Your task to perform on an android device: What's the weather going to be this weekend? Image 0: 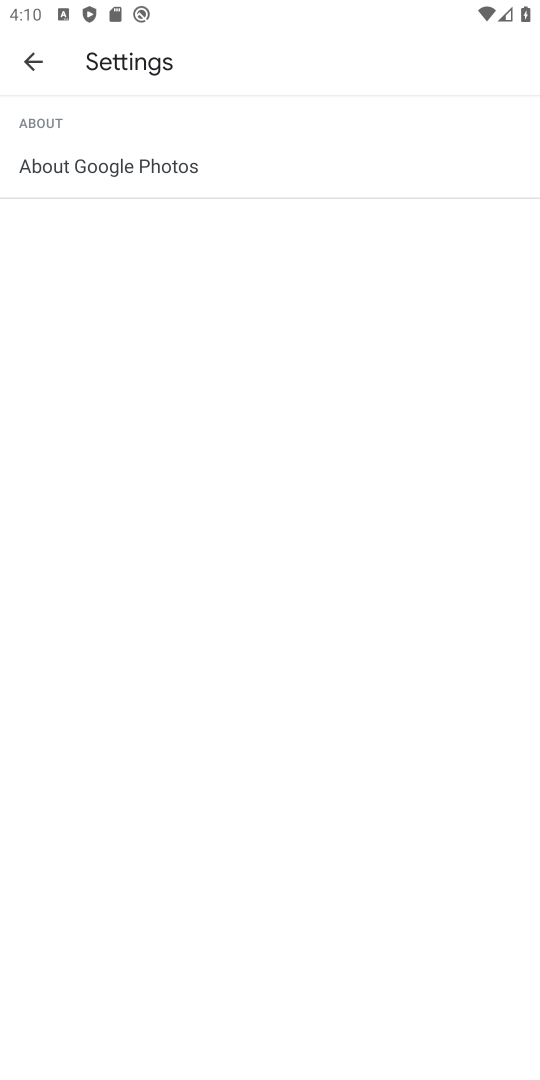
Step 0: press home button
Your task to perform on an android device: What's the weather going to be this weekend? Image 1: 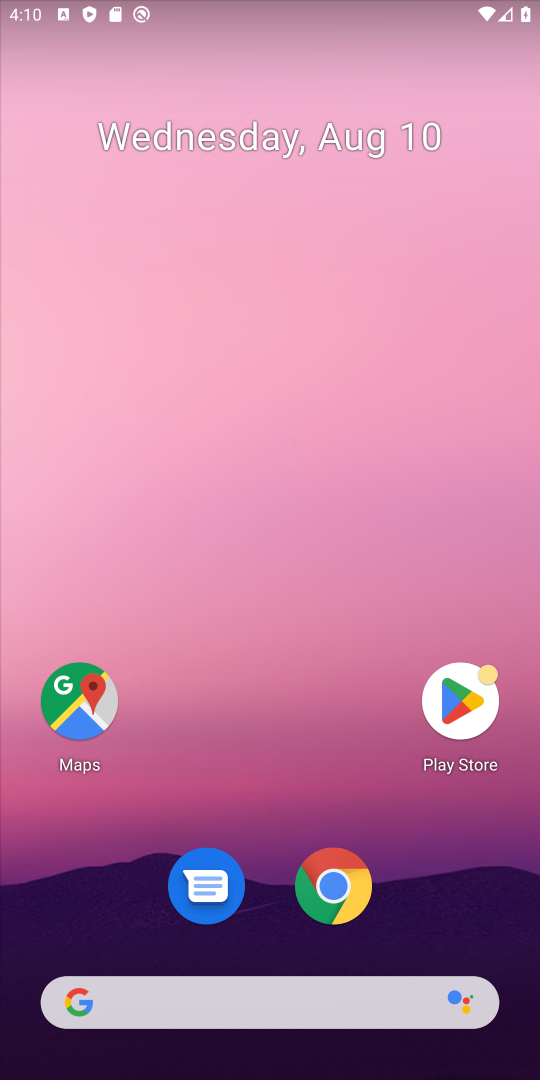
Step 1: click (166, 994)
Your task to perform on an android device: What's the weather going to be this weekend? Image 2: 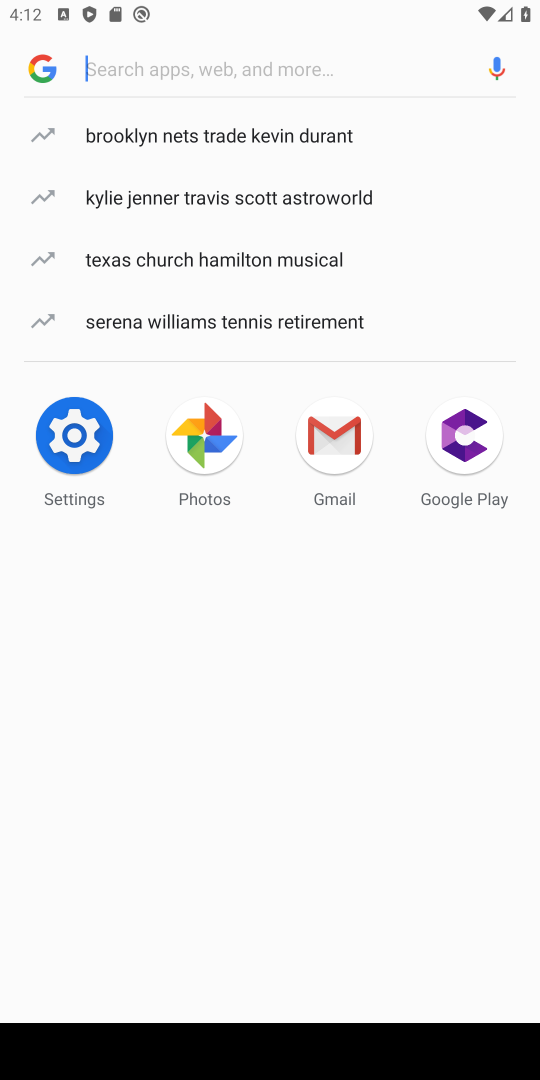
Step 2: type "the weather going to be this weekend"
Your task to perform on an android device: What's the weather going to be this weekend? Image 3: 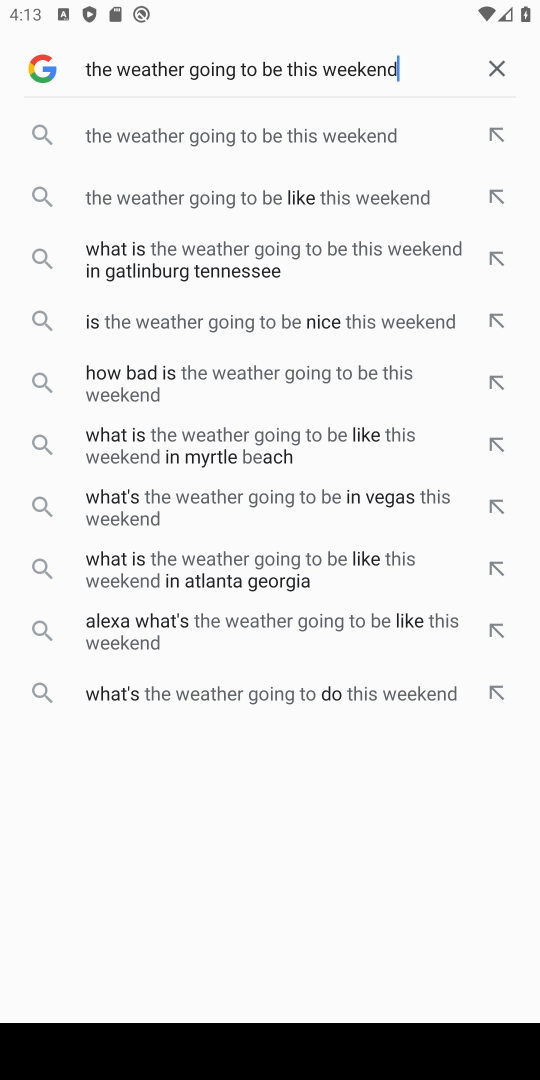
Step 3: click (206, 143)
Your task to perform on an android device: What's the weather going to be this weekend? Image 4: 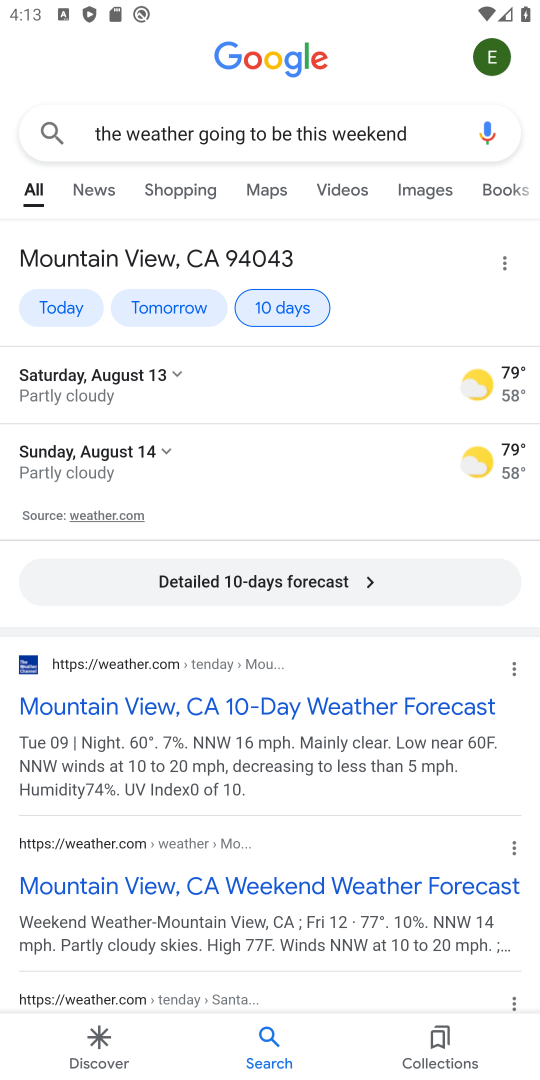
Step 4: task complete